Your task to perform on an android device: Clear the shopping cart on costco.com. Search for razer blade on costco.com, select the first entry, and add it to the cart. Image 0: 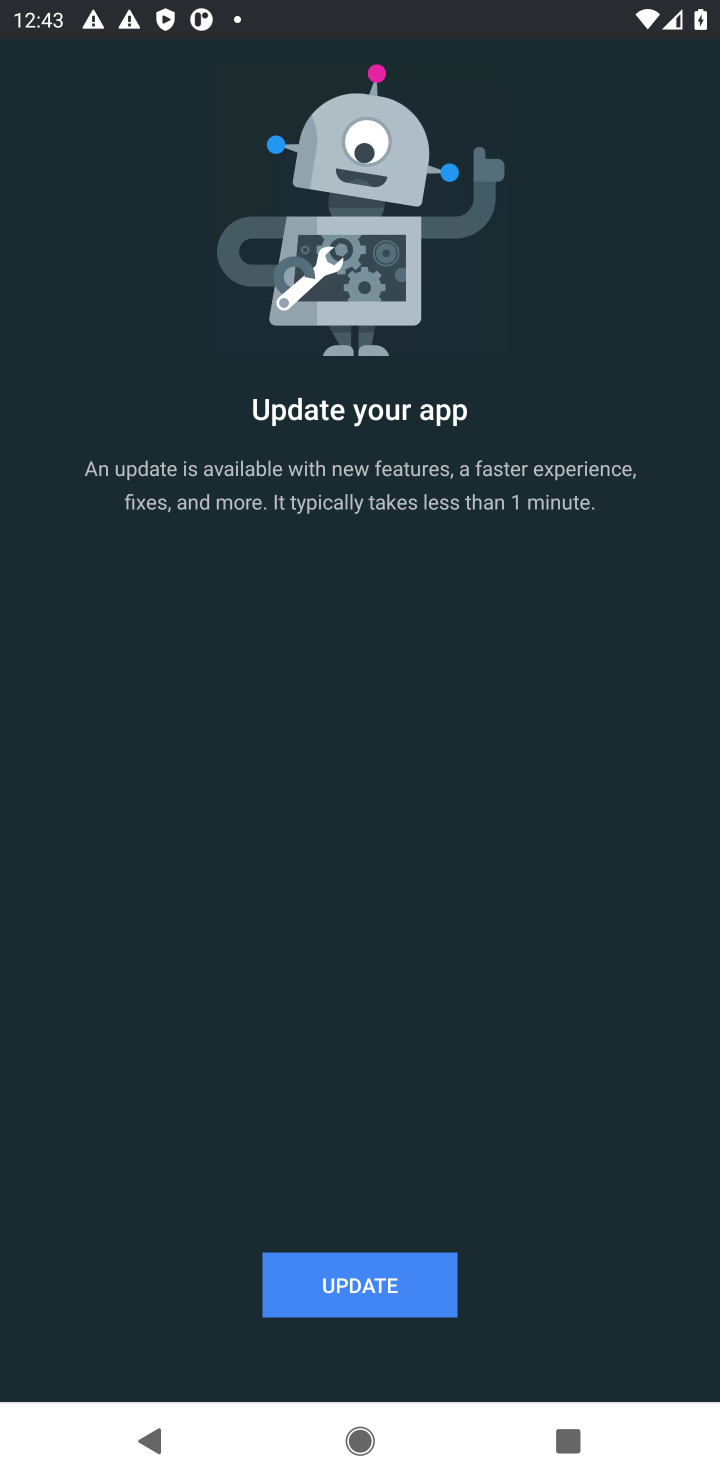
Step 0: press home button
Your task to perform on an android device: Clear the shopping cart on costco.com. Search for razer blade on costco.com, select the first entry, and add it to the cart. Image 1: 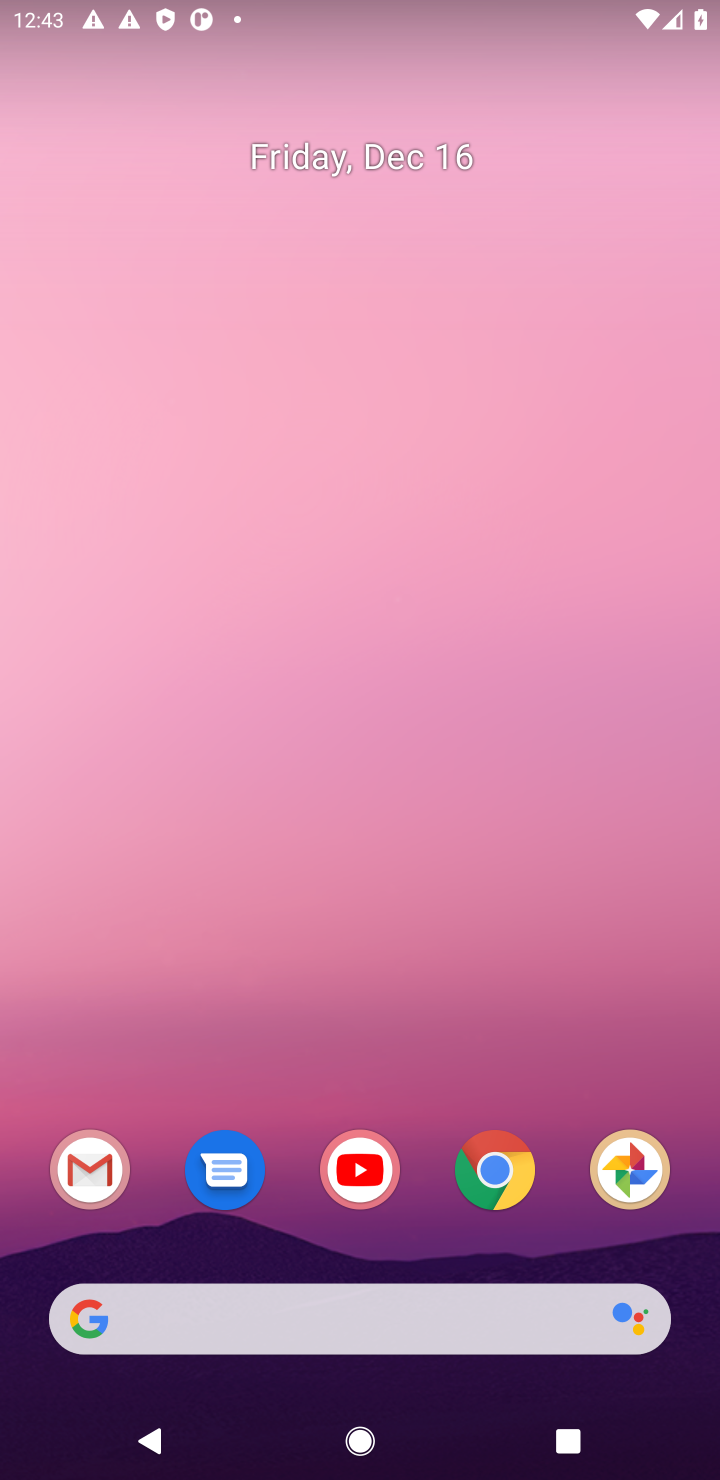
Step 1: click (506, 1185)
Your task to perform on an android device: Clear the shopping cart on costco.com. Search for razer blade on costco.com, select the first entry, and add it to the cart. Image 2: 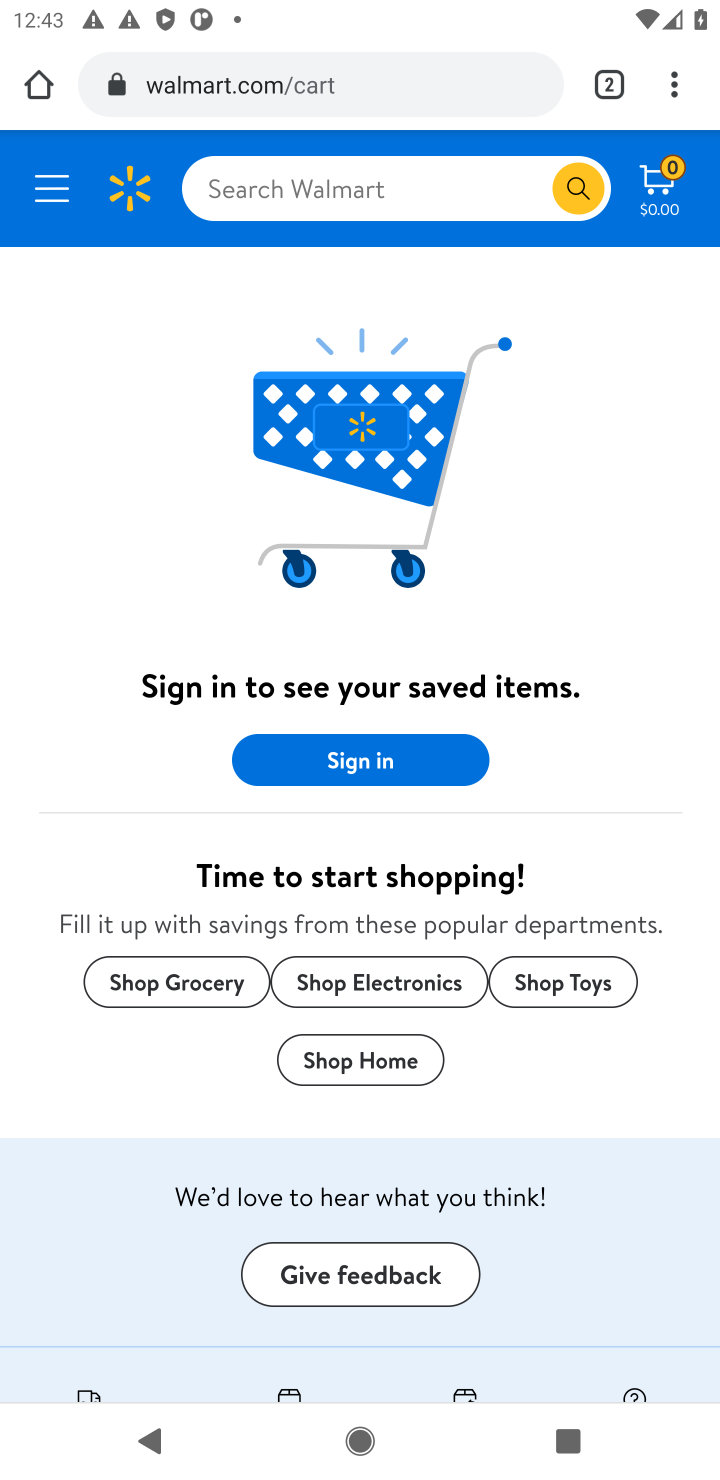
Step 2: click (302, 76)
Your task to perform on an android device: Clear the shopping cart on costco.com. Search for razer blade on costco.com, select the first entry, and add it to the cart. Image 3: 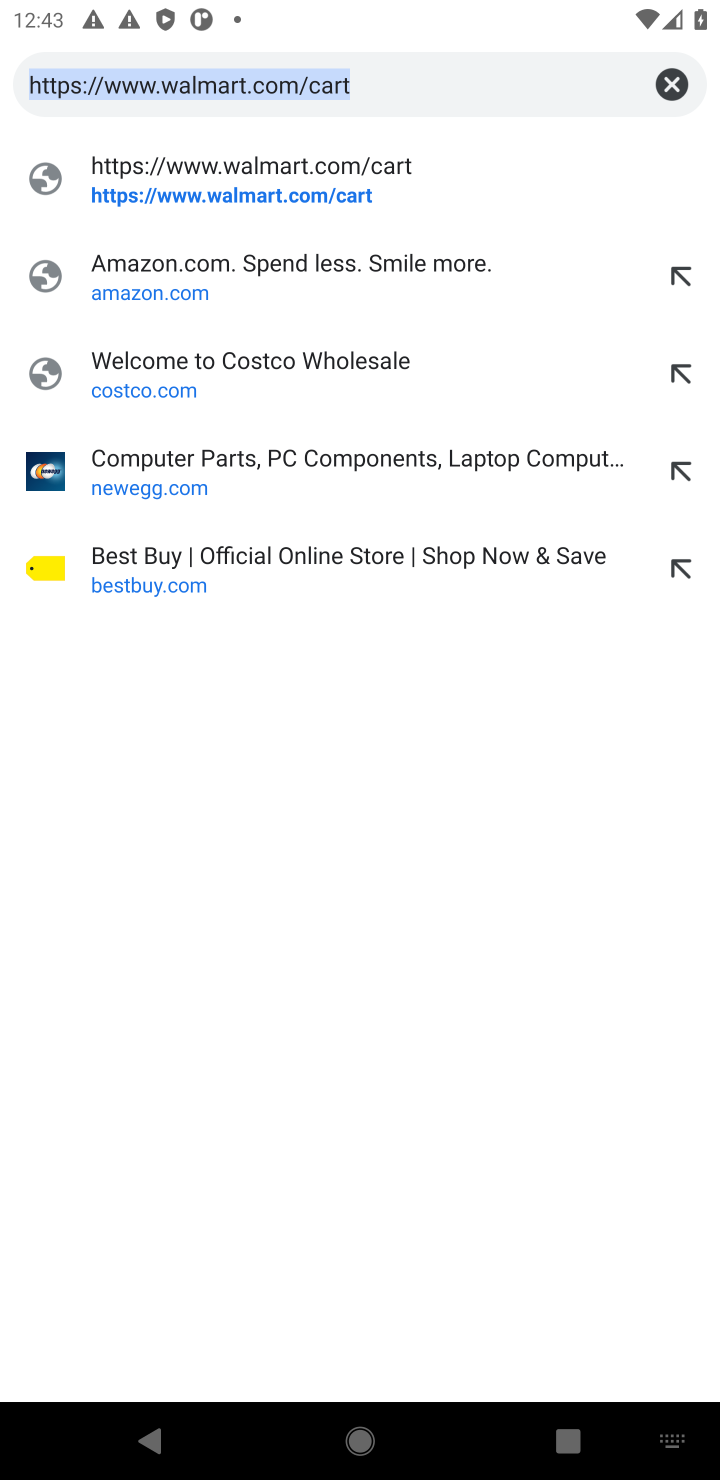
Step 3: click (150, 371)
Your task to perform on an android device: Clear the shopping cart on costco.com. Search for razer blade on costco.com, select the first entry, and add it to the cart. Image 4: 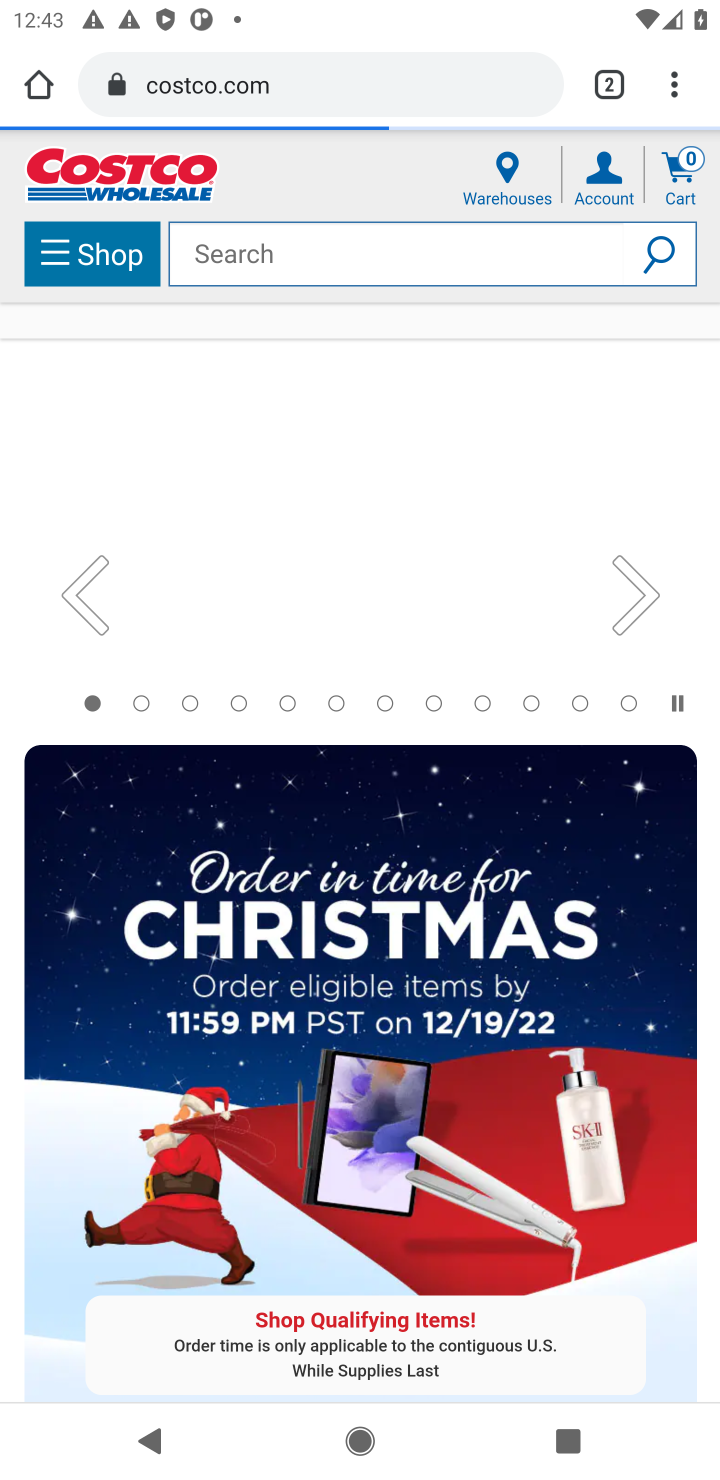
Step 4: click (681, 179)
Your task to perform on an android device: Clear the shopping cart on costco.com. Search for razer blade on costco.com, select the first entry, and add it to the cart. Image 5: 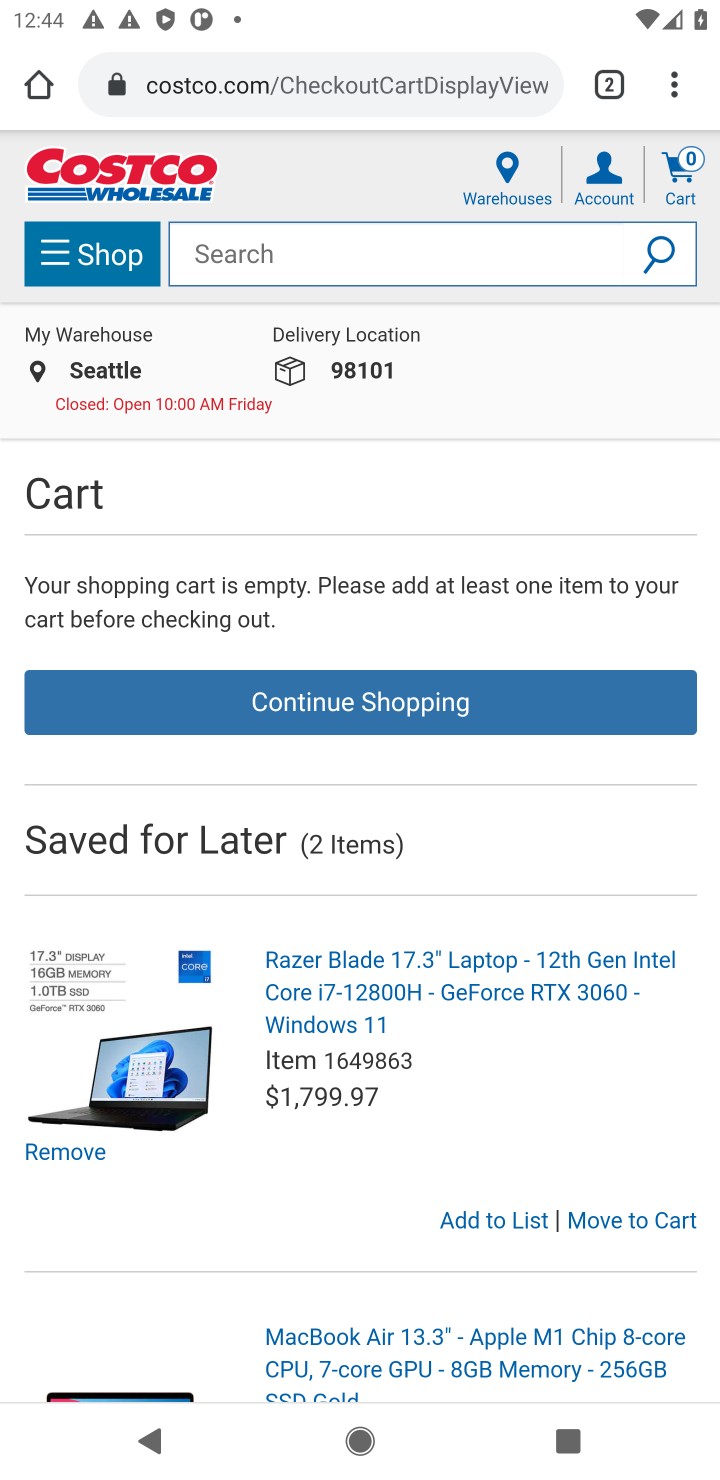
Step 5: click (223, 265)
Your task to perform on an android device: Clear the shopping cart on costco.com. Search for razer blade on costco.com, select the first entry, and add it to the cart. Image 6: 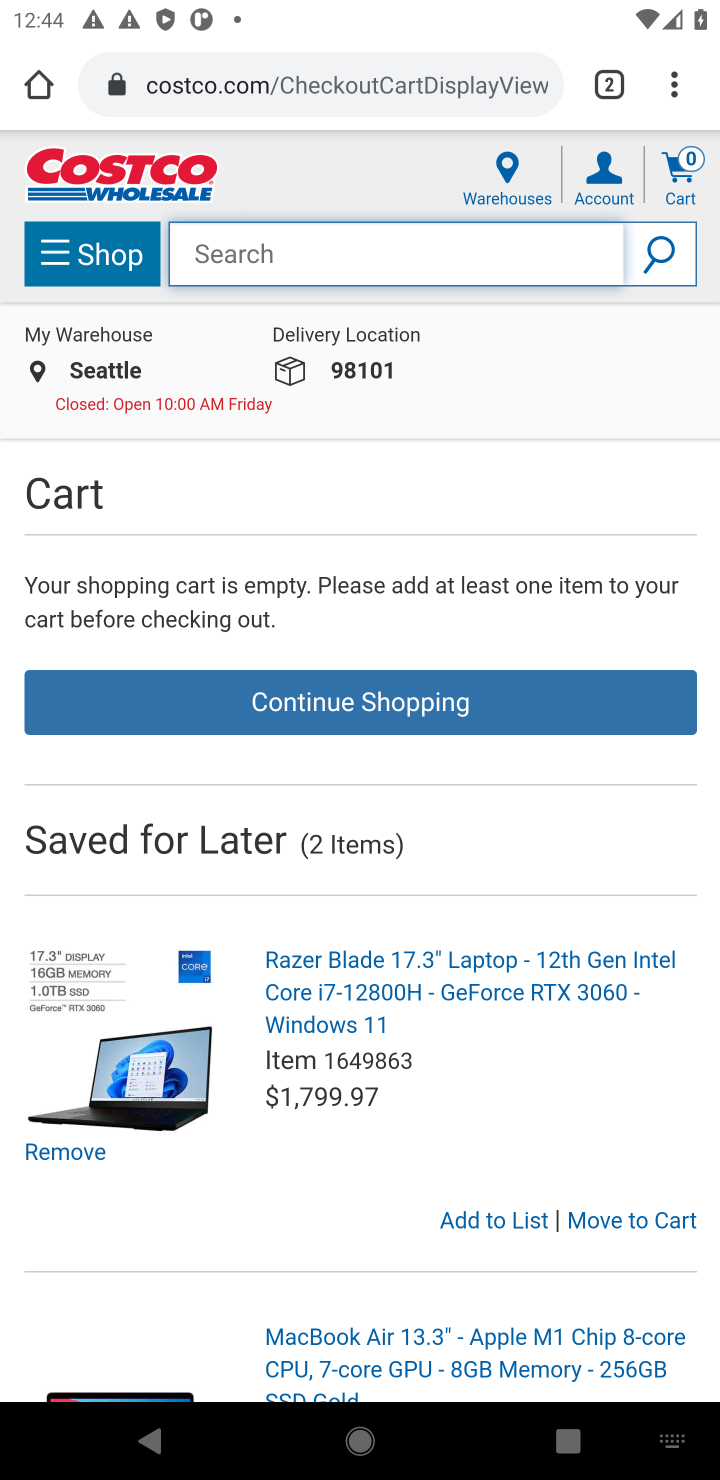
Step 6: type "razer blade"
Your task to perform on an android device: Clear the shopping cart on costco.com. Search for razer blade on costco.com, select the first entry, and add it to the cart. Image 7: 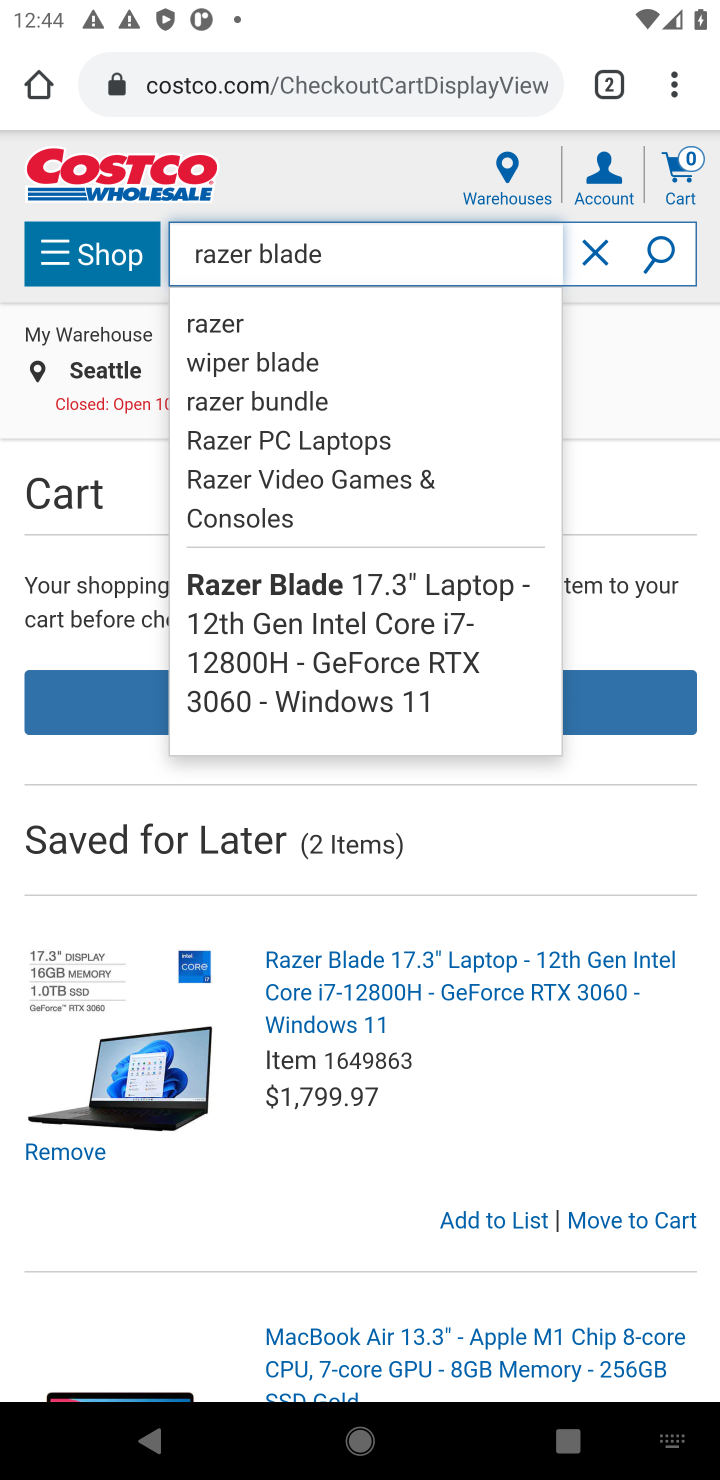
Step 7: click (656, 259)
Your task to perform on an android device: Clear the shopping cart on costco.com. Search for razer blade on costco.com, select the first entry, and add it to the cart. Image 8: 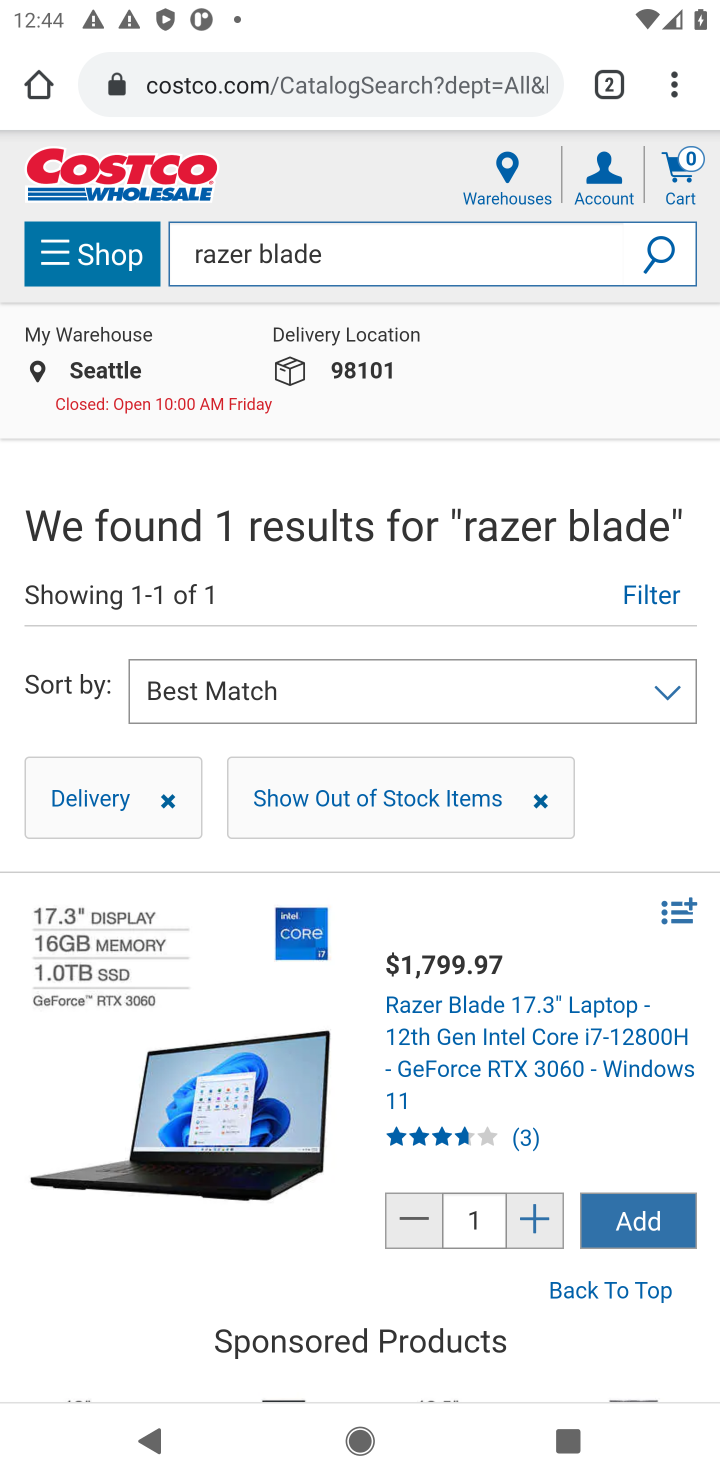
Step 8: click (619, 1223)
Your task to perform on an android device: Clear the shopping cart on costco.com. Search for razer blade on costco.com, select the first entry, and add it to the cart. Image 9: 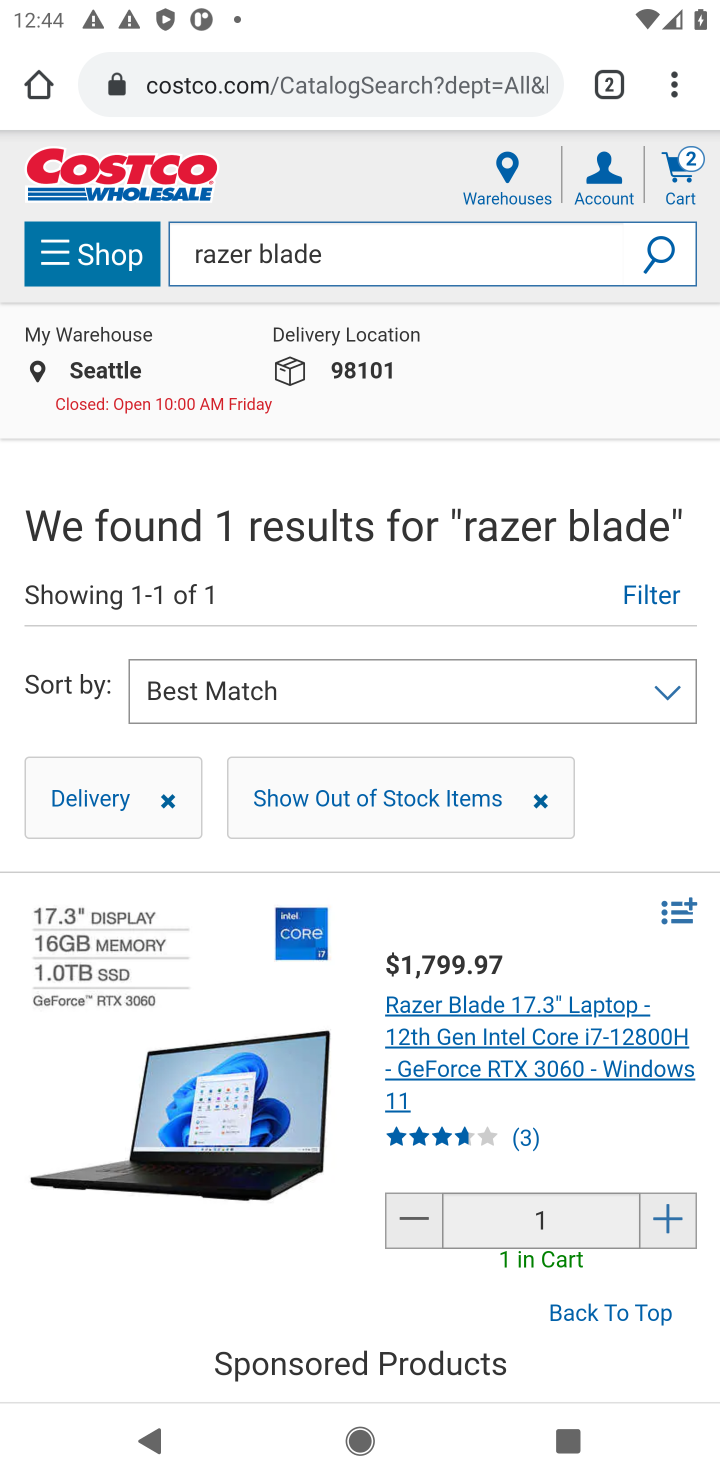
Step 9: task complete